Your task to perform on an android device: Search for seafood restaurants on Google Maps Image 0: 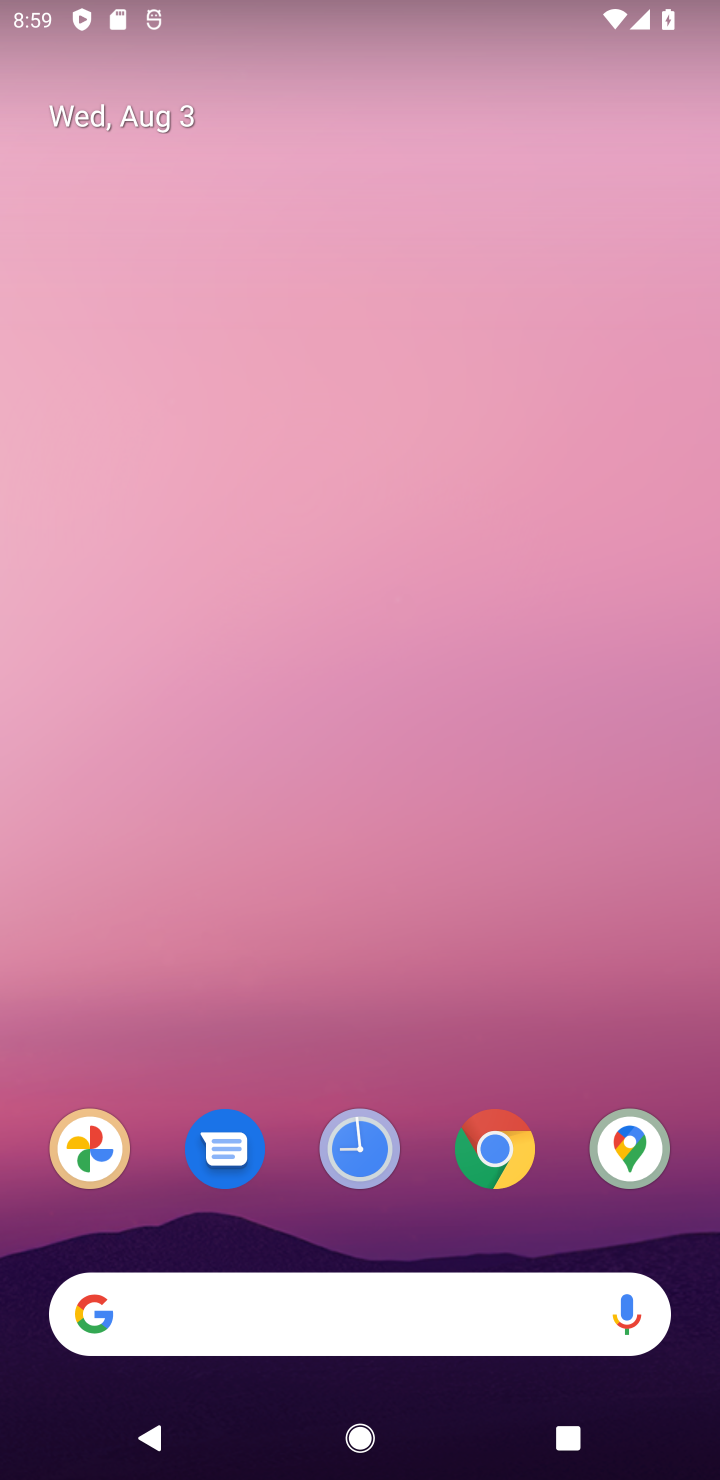
Step 0: click (639, 1148)
Your task to perform on an android device: Search for seafood restaurants on Google Maps Image 1: 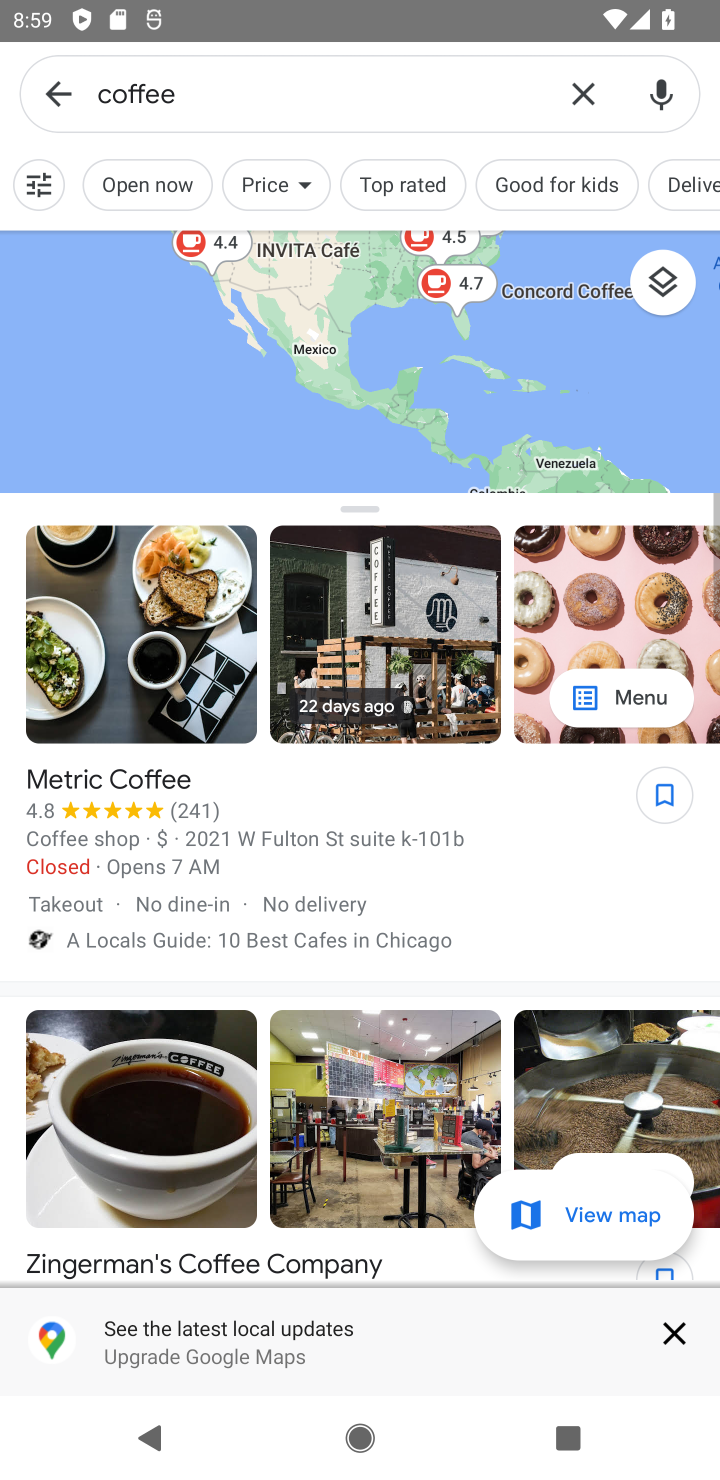
Step 1: click (585, 86)
Your task to perform on an android device: Search for seafood restaurants on Google Maps Image 2: 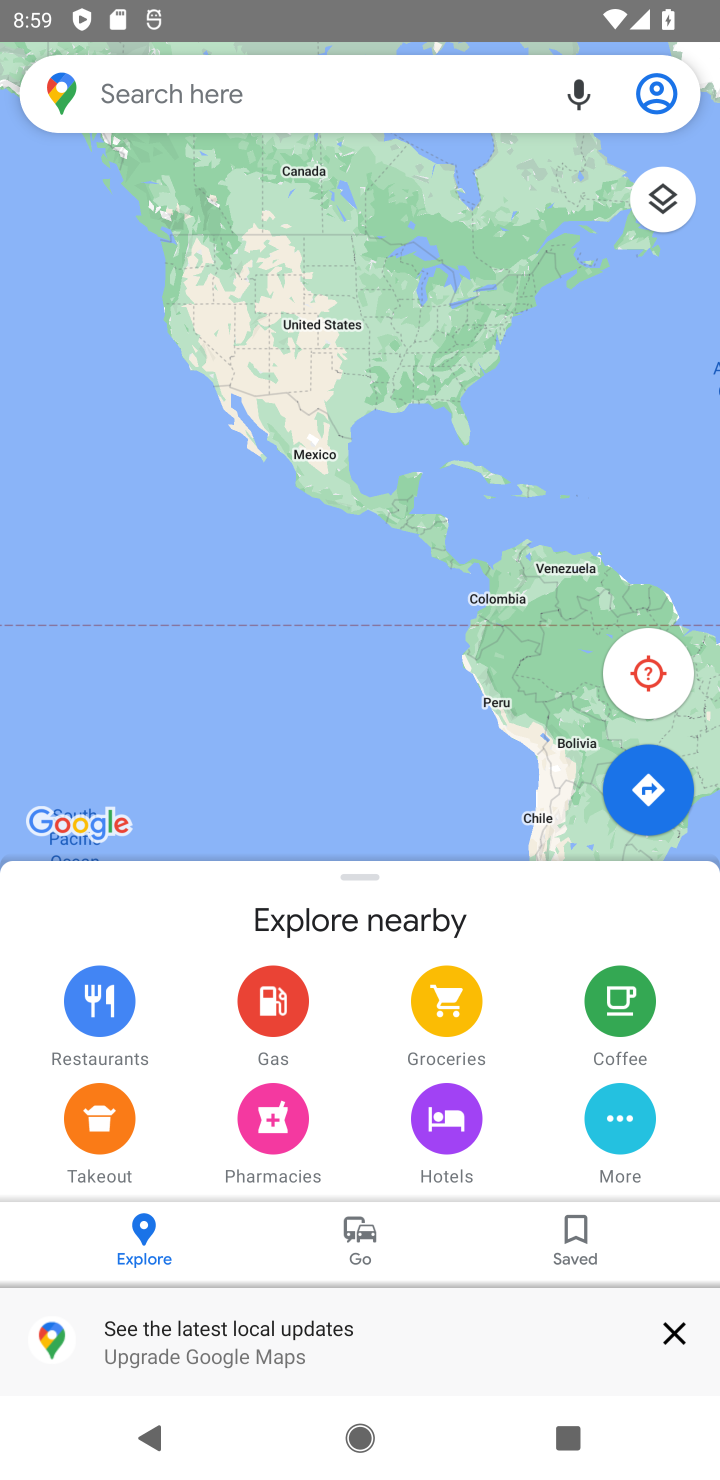
Step 2: click (364, 75)
Your task to perform on an android device: Search for seafood restaurants on Google Maps Image 3: 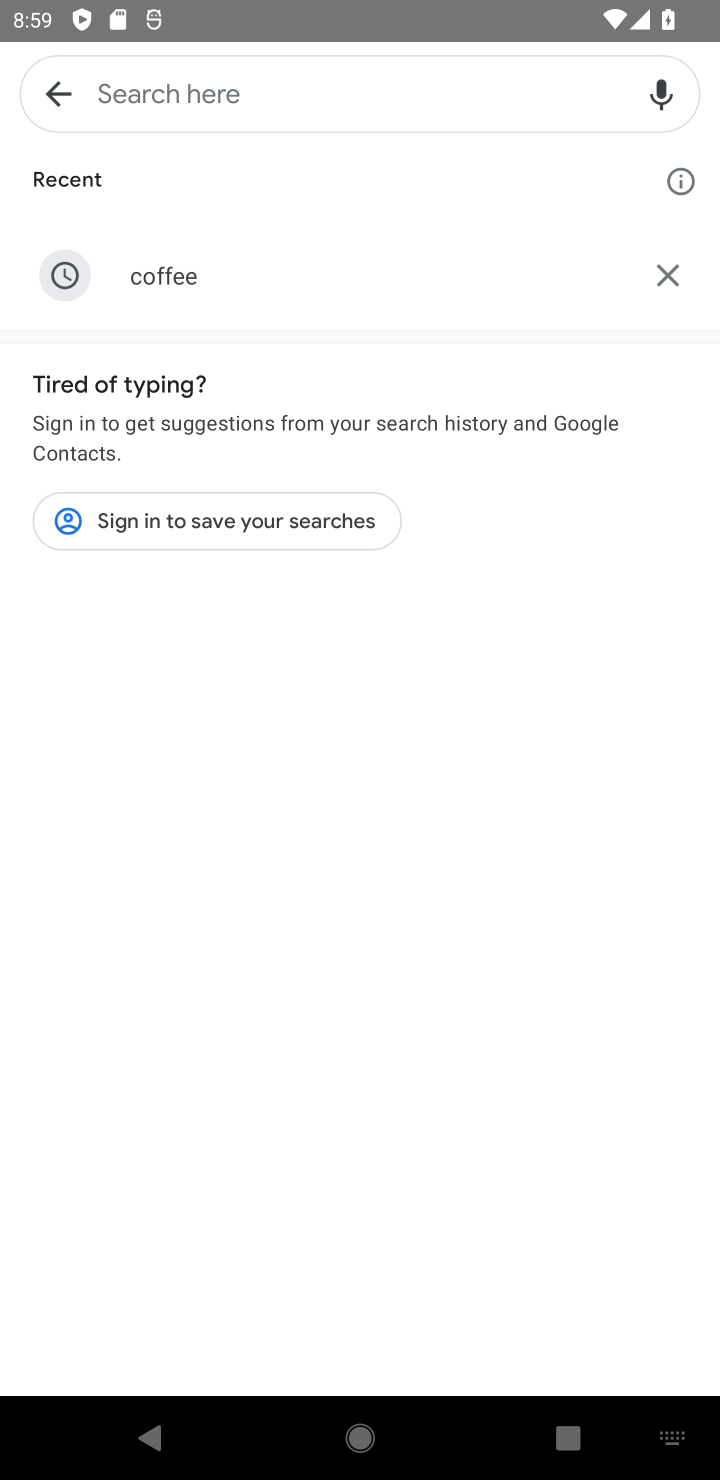
Step 3: type "seafood restaurants"
Your task to perform on an android device: Search for seafood restaurants on Google Maps Image 4: 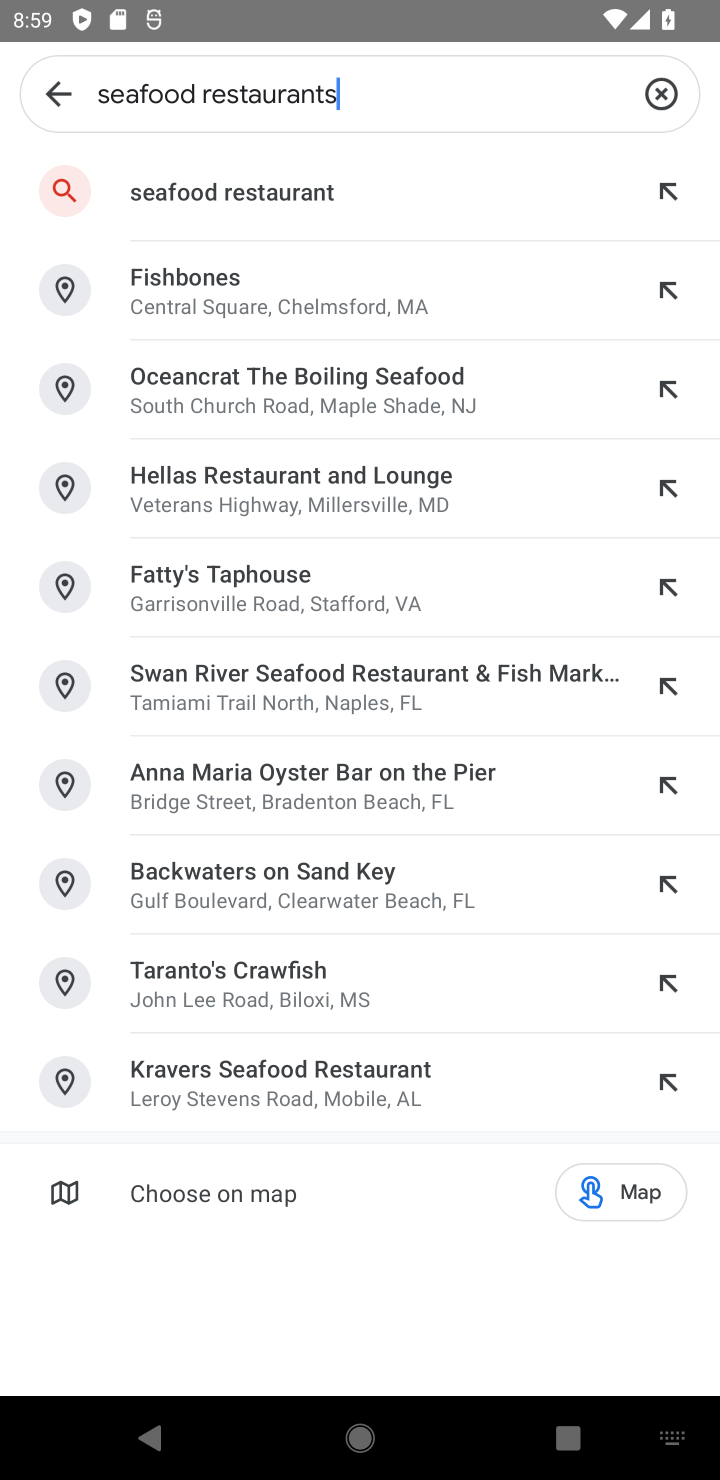
Step 4: click (631, 168)
Your task to perform on an android device: Search for seafood restaurants on Google Maps Image 5: 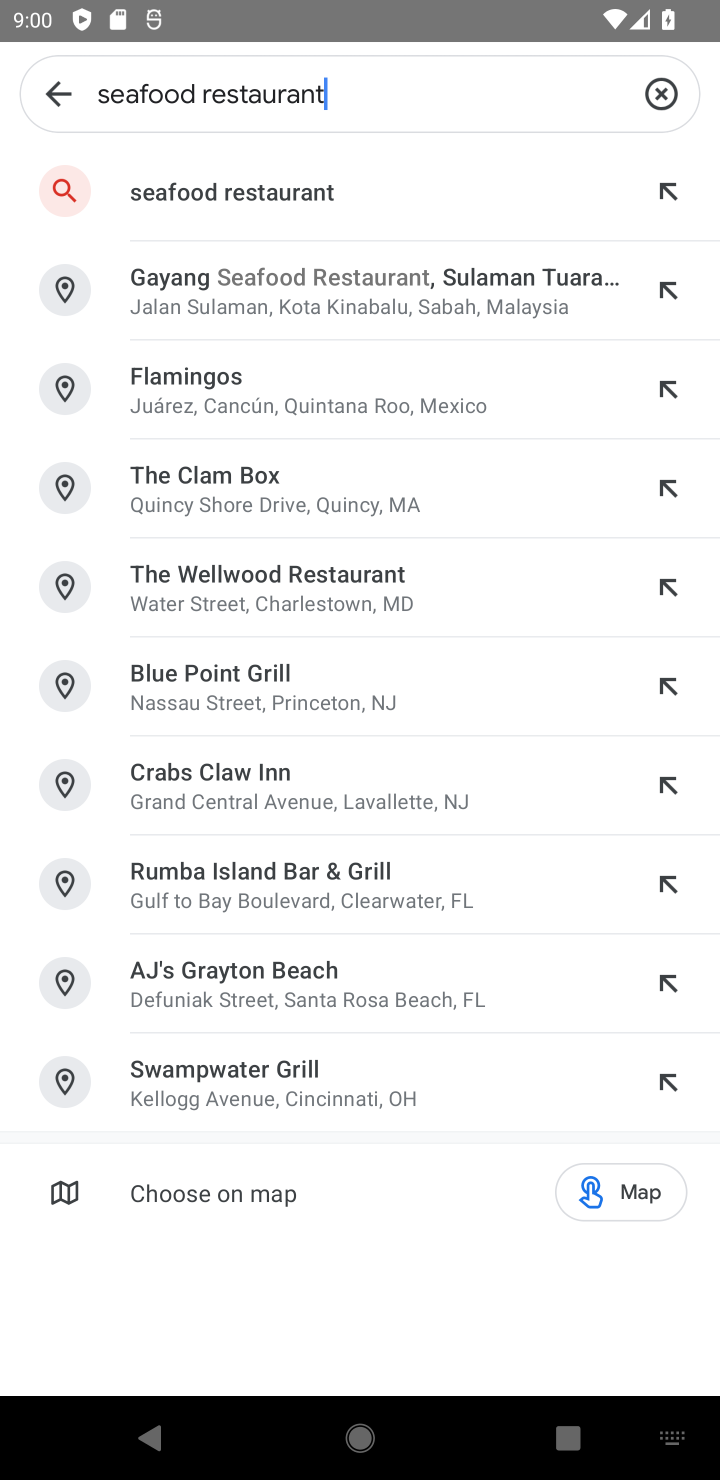
Step 5: click (277, 182)
Your task to perform on an android device: Search for seafood restaurants on Google Maps Image 6: 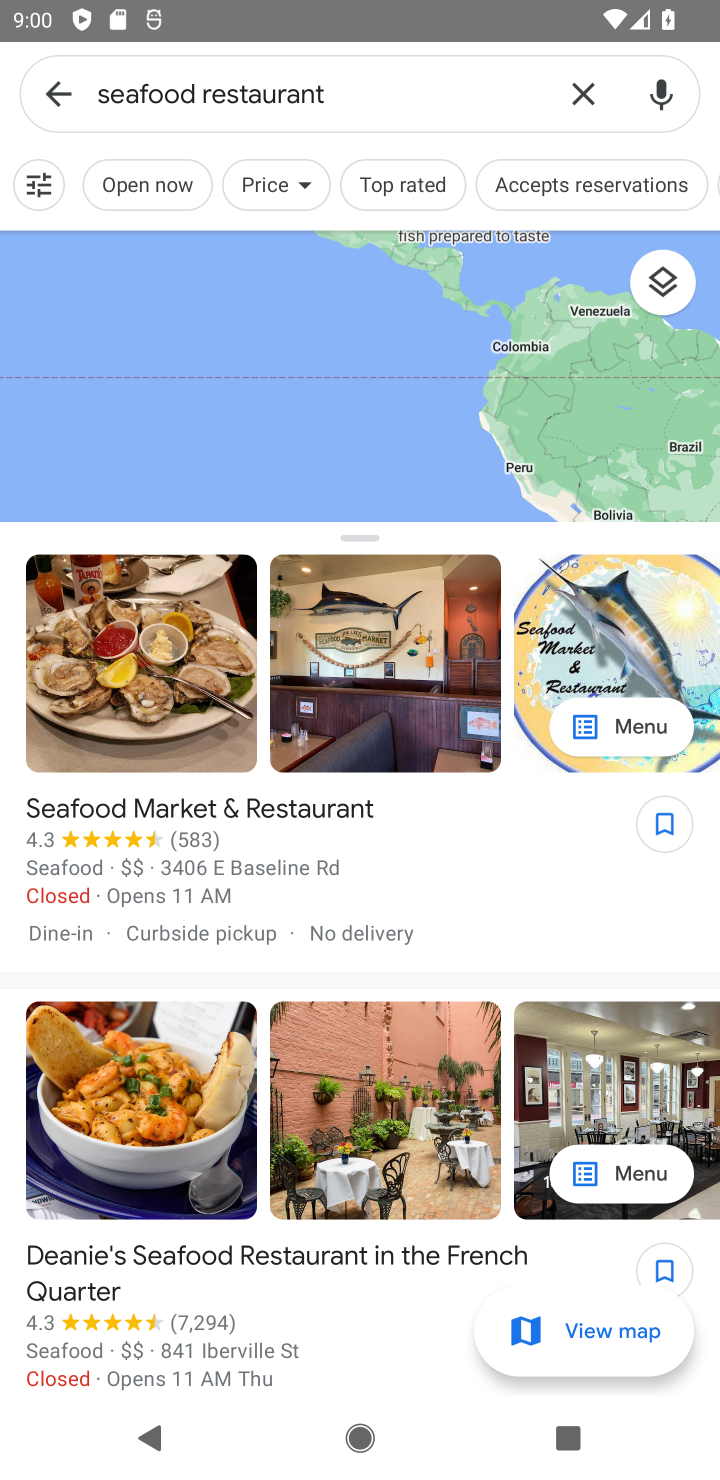
Step 6: task complete